Your task to perform on an android device: change notification settings in the gmail app Image 0: 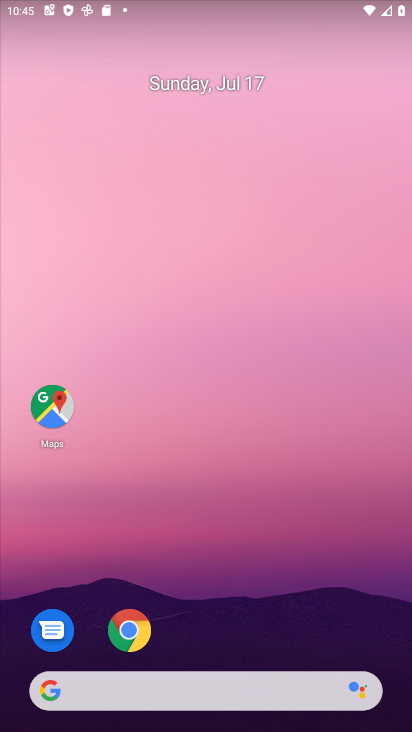
Step 0: drag from (298, 604) to (303, 213)
Your task to perform on an android device: change notification settings in the gmail app Image 1: 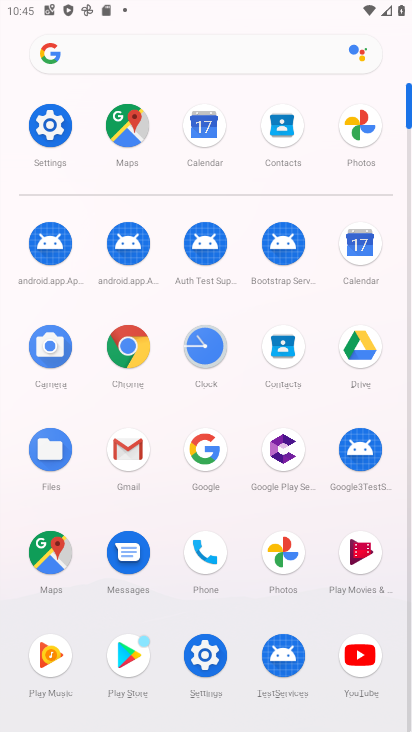
Step 1: click (148, 460)
Your task to perform on an android device: change notification settings in the gmail app Image 2: 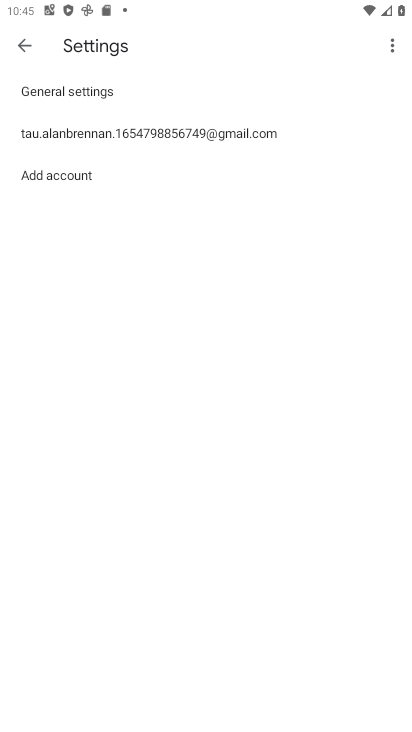
Step 2: click (167, 130)
Your task to perform on an android device: change notification settings in the gmail app Image 3: 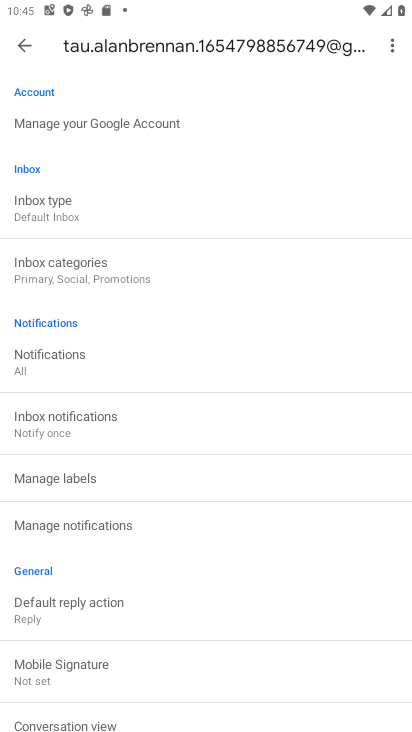
Step 3: task complete